Your task to perform on an android device: delete a single message in the gmail app Image 0: 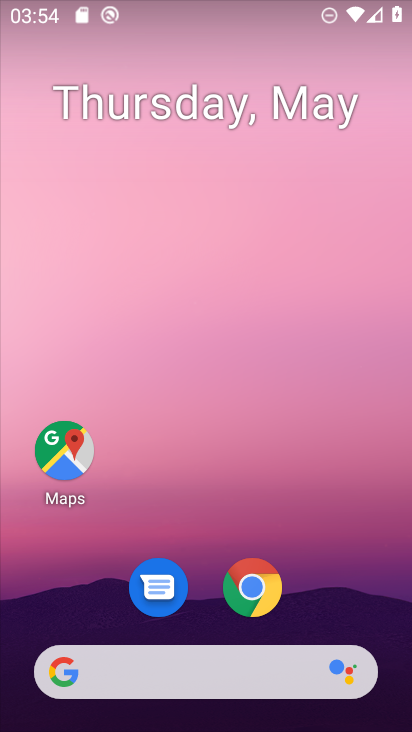
Step 0: drag from (376, 603) to (359, 237)
Your task to perform on an android device: delete a single message in the gmail app Image 1: 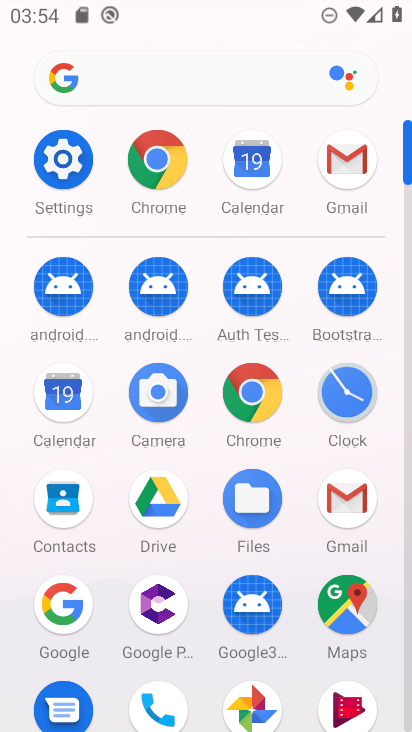
Step 1: drag from (288, 639) to (285, 524)
Your task to perform on an android device: delete a single message in the gmail app Image 2: 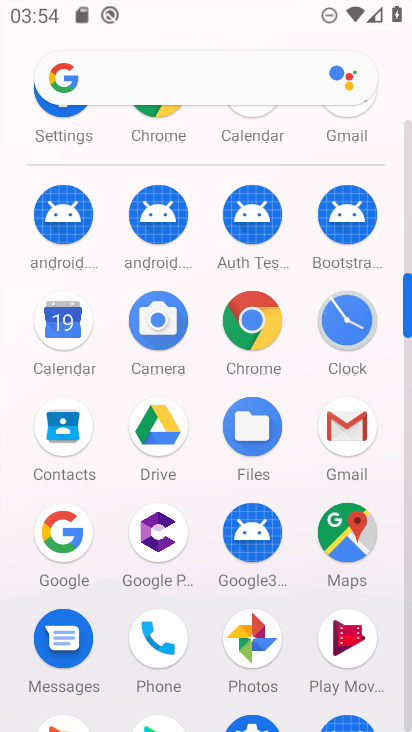
Step 2: click (332, 454)
Your task to perform on an android device: delete a single message in the gmail app Image 3: 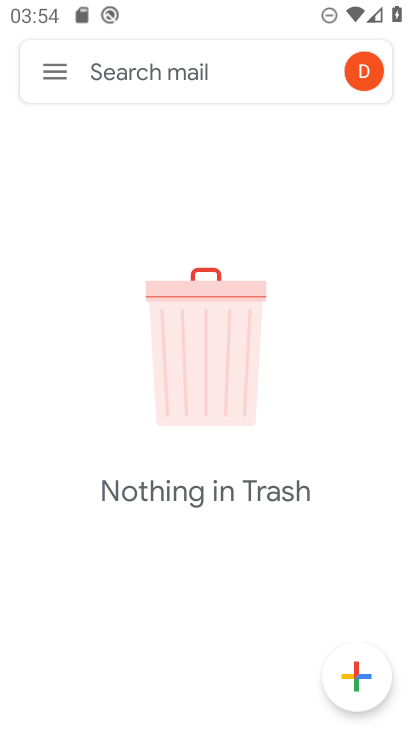
Step 3: click (56, 86)
Your task to perform on an android device: delete a single message in the gmail app Image 4: 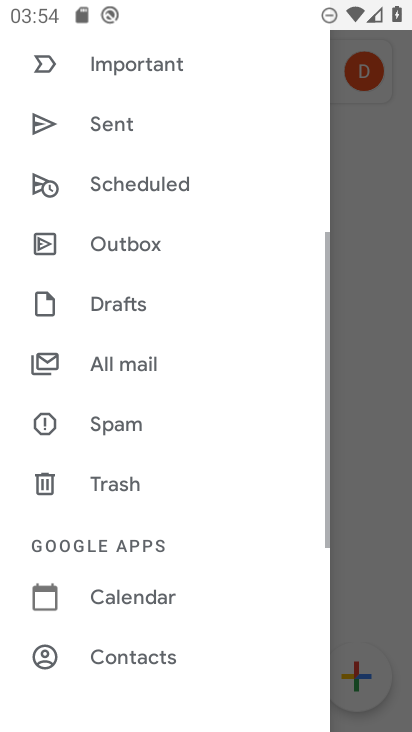
Step 4: drag from (222, 311) to (227, 425)
Your task to perform on an android device: delete a single message in the gmail app Image 5: 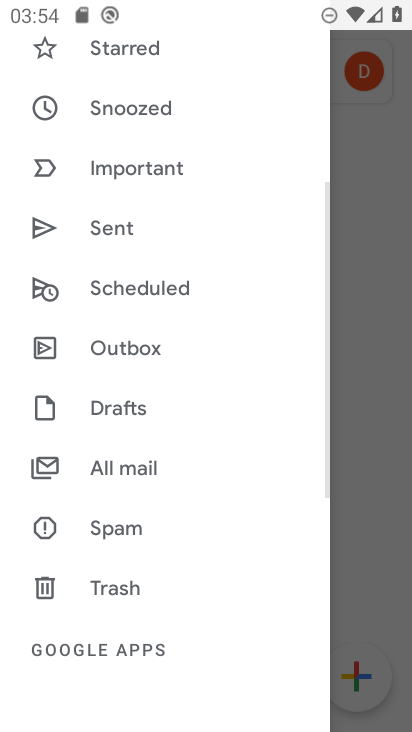
Step 5: drag from (247, 252) to (255, 415)
Your task to perform on an android device: delete a single message in the gmail app Image 6: 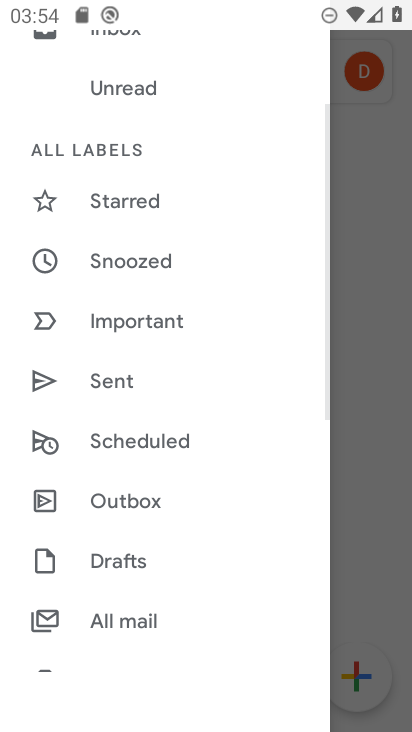
Step 6: drag from (252, 225) to (245, 432)
Your task to perform on an android device: delete a single message in the gmail app Image 7: 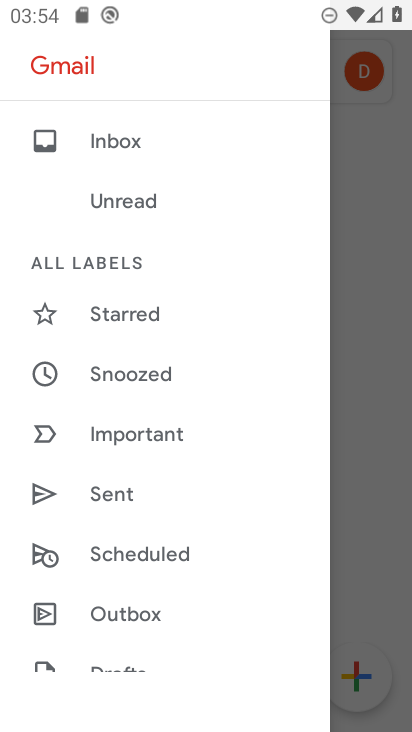
Step 7: click (156, 150)
Your task to perform on an android device: delete a single message in the gmail app Image 8: 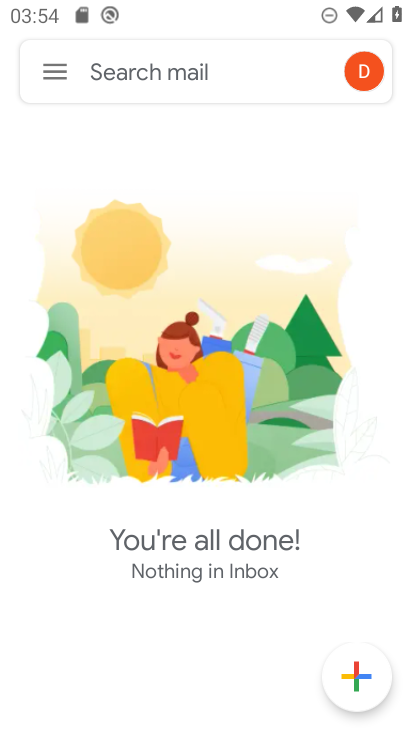
Step 8: task complete